Your task to perform on an android device: Toggle the flashlight Image 0: 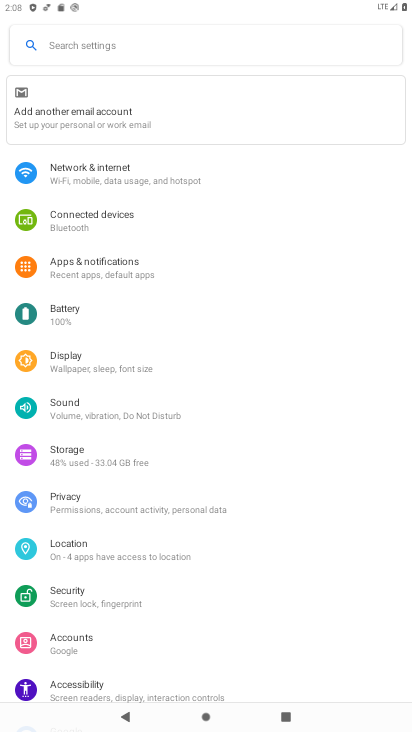
Step 0: press home button
Your task to perform on an android device: Toggle the flashlight Image 1: 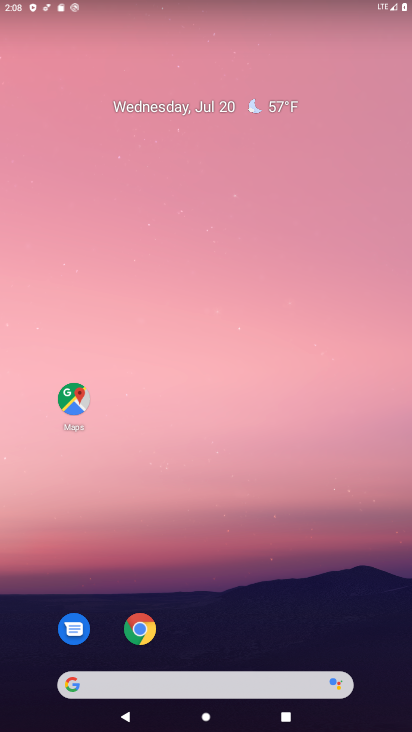
Step 1: drag from (208, 15) to (185, 477)
Your task to perform on an android device: Toggle the flashlight Image 2: 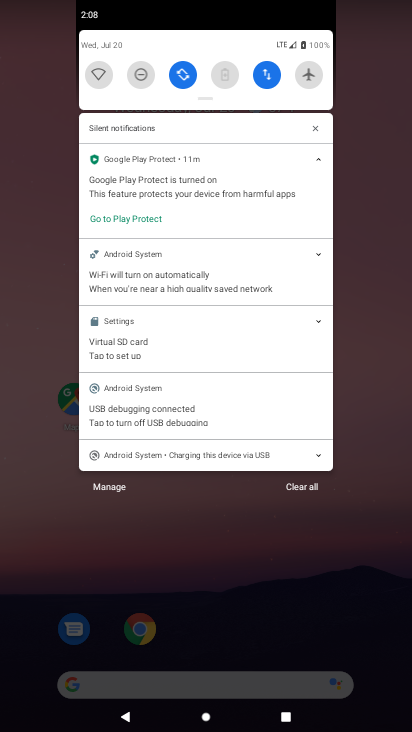
Step 2: drag from (211, 93) to (204, 373)
Your task to perform on an android device: Toggle the flashlight Image 3: 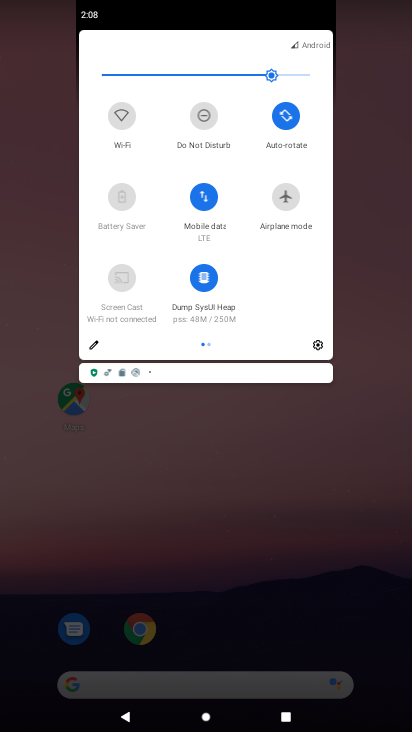
Step 3: click (93, 346)
Your task to perform on an android device: Toggle the flashlight Image 4: 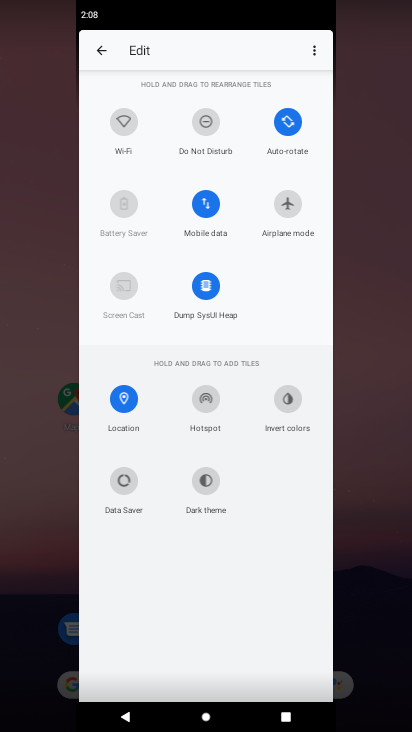
Step 4: task complete